Your task to perform on an android device: Open Google Maps and go to "Timeline" Image 0: 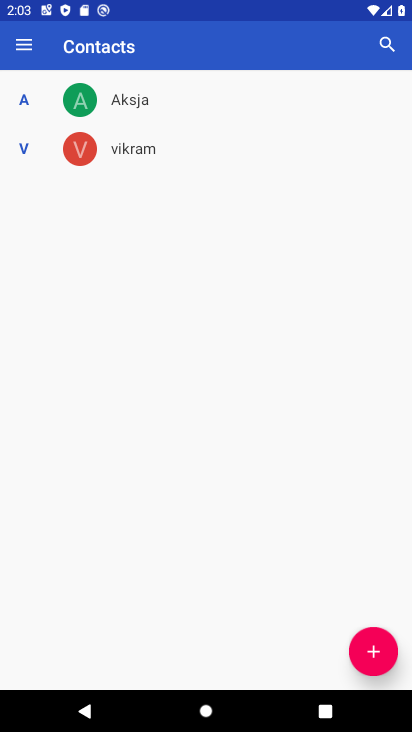
Step 0: press home button
Your task to perform on an android device: Open Google Maps and go to "Timeline" Image 1: 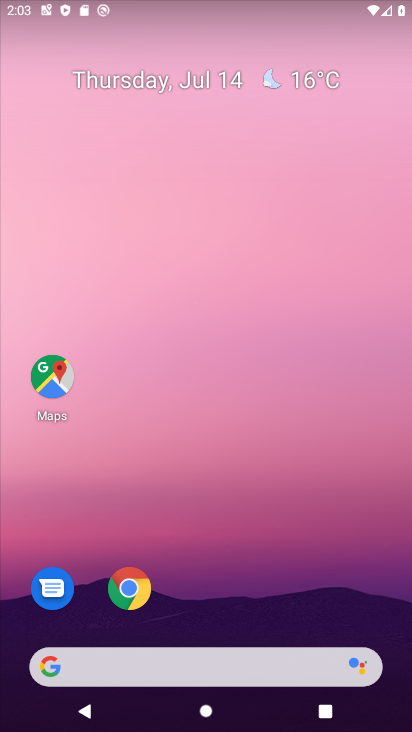
Step 1: click (45, 367)
Your task to perform on an android device: Open Google Maps and go to "Timeline" Image 2: 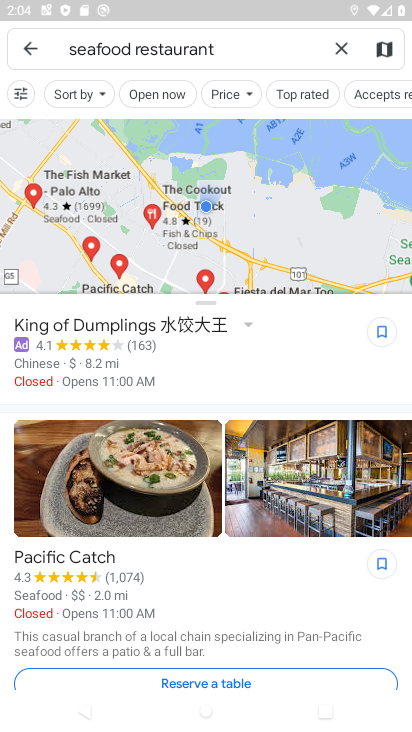
Step 2: click (20, 48)
Your task to perform on an android device: Open Google Maps and go to "Timeline" Image 3: 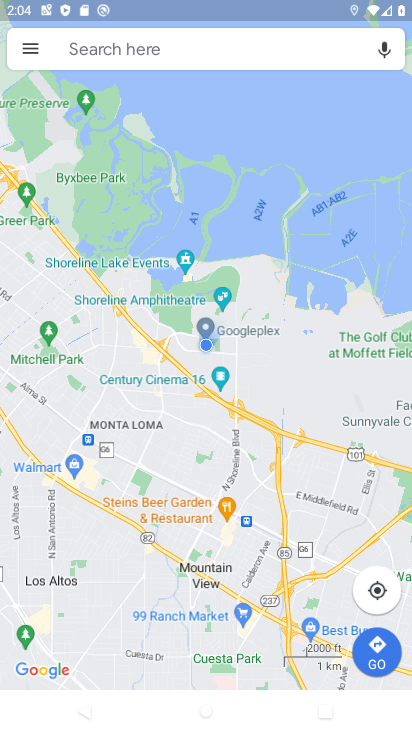
Step 3: click (20, 48)
Your task to perform on an android device: Open Google Maps and go to "Timeline" Image 4: 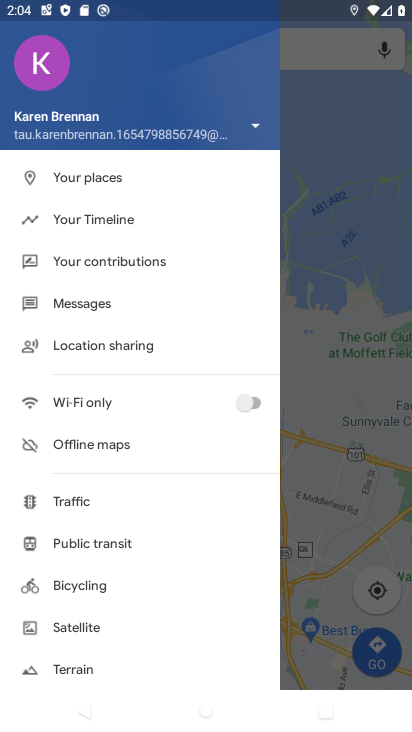
Step 4: click (92, 225)
Your task to perform on an android device: Open Google Maps and go to "Timeline" Image 5: 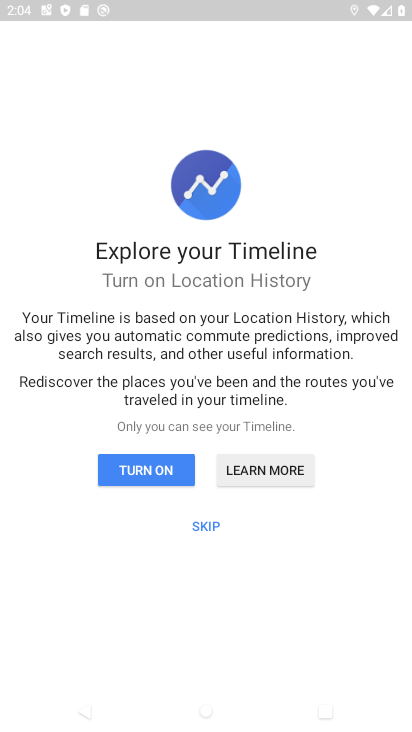
Step 5: click (210, 519)
Your task to perform on an android device: Open Google Maps and go to "Timeline" Image 6: 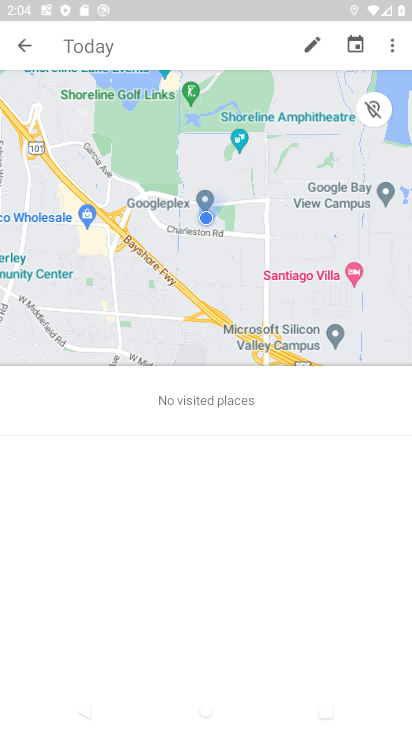
Step 6: task complete